Your task to perform on an android device: Go to Maps Image 0: 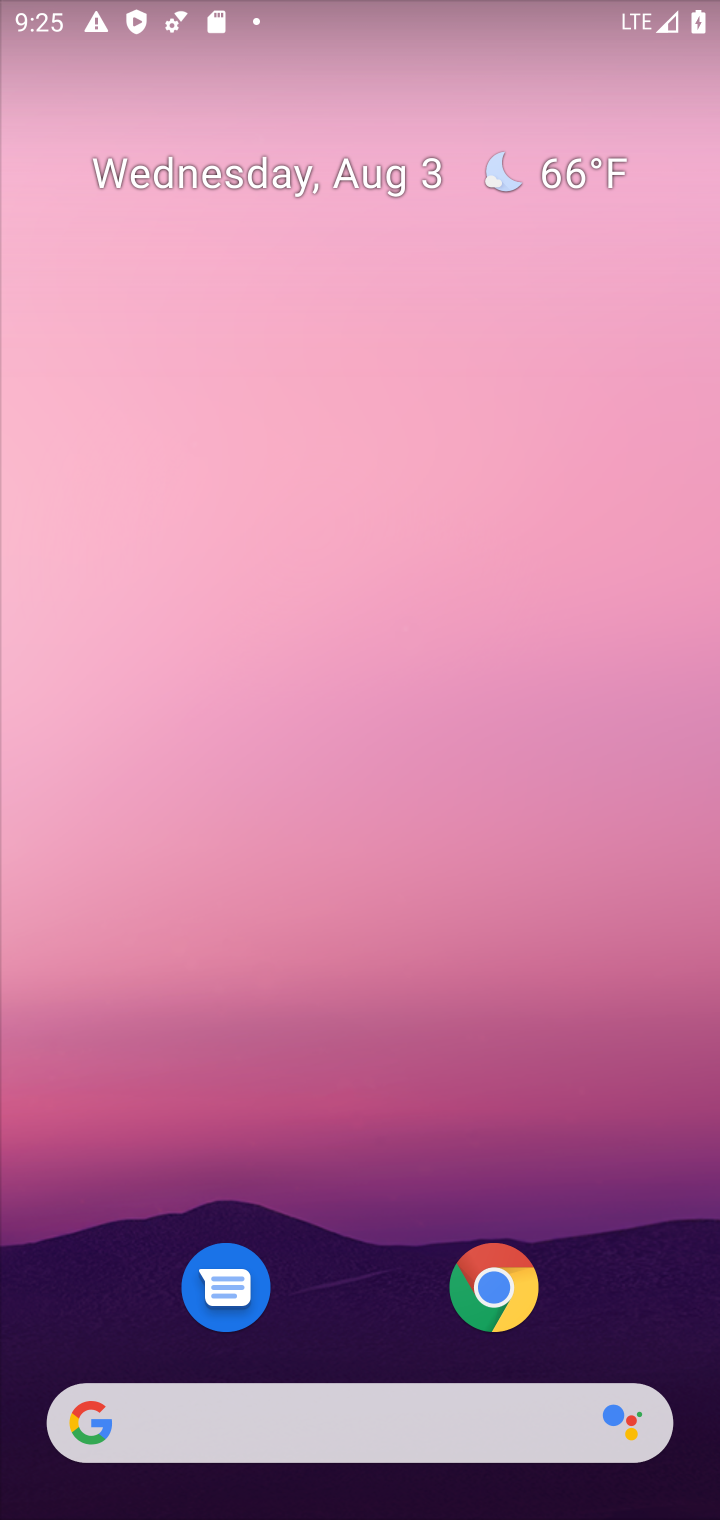
Step 0: drag from (407, 1062) to (337, 179)
Your task to perform on an android device: Go to Maps Image 1: 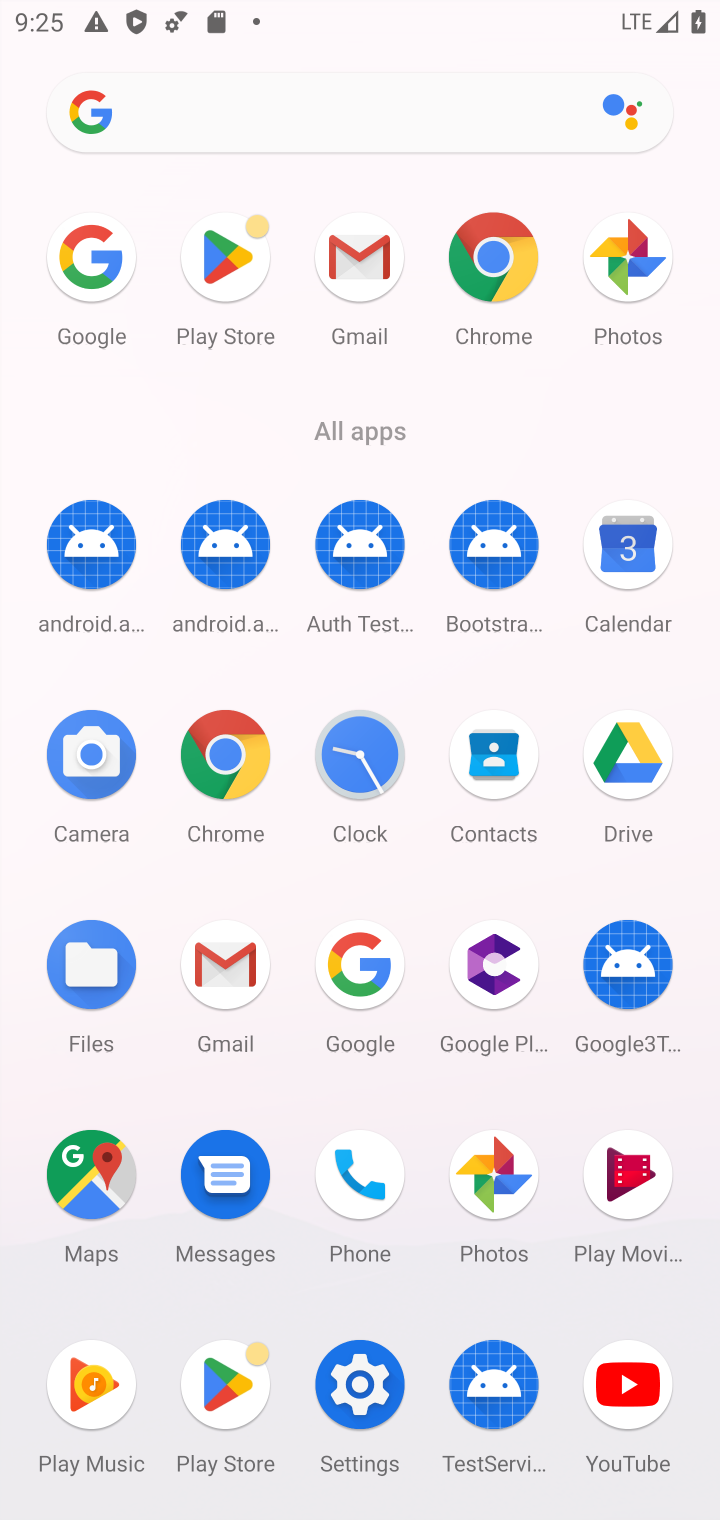
Step 1: click (96, 1170)
Your task to perform on an android device: Go to Maps Image 2: 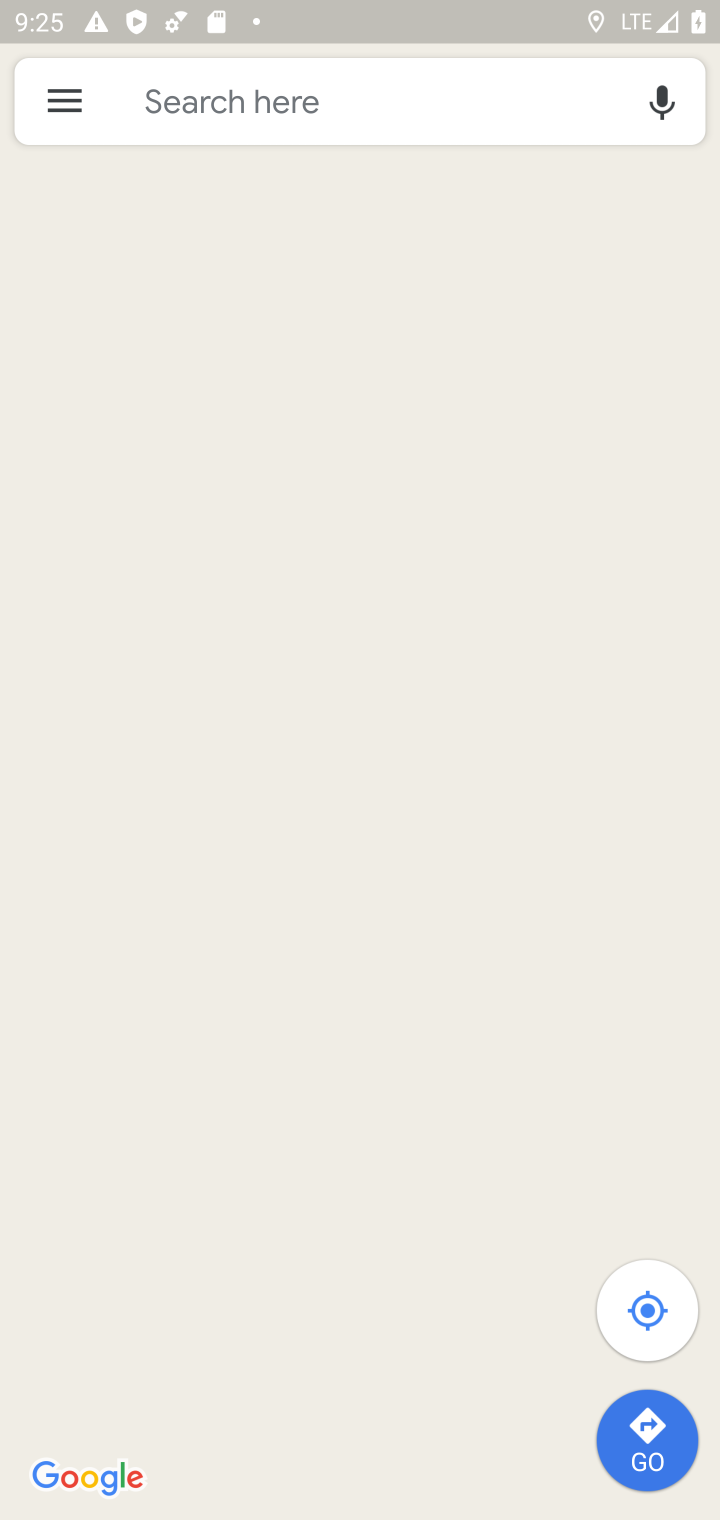
Step 2: task complete